Your task to perform on an android device: find snoozed emails in the gmail app Image 0: 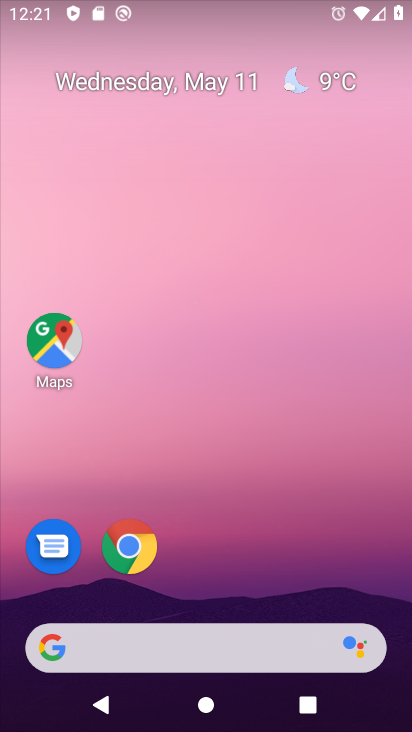
Step 0: drag from (201, 564) to (203, 260)
Your task to perform on an android device: find snoozed emails in the gmail app Image 1: 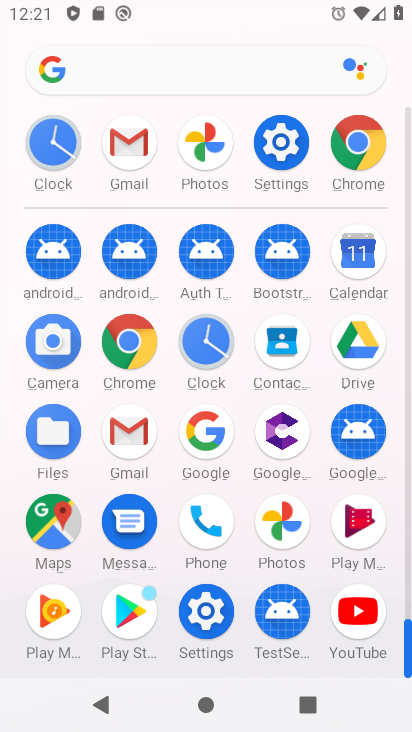
Step 1: click (141, 434)
Your task to perform on an android device: find snoozed emails in the gmail app Image 2: 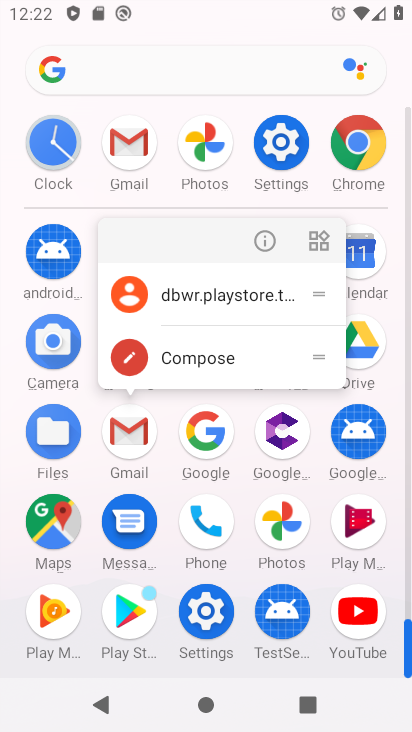
Step 2: click (253, 245)
Your task to perform on an android device: find snoozed emails in the gmail app Image 3: 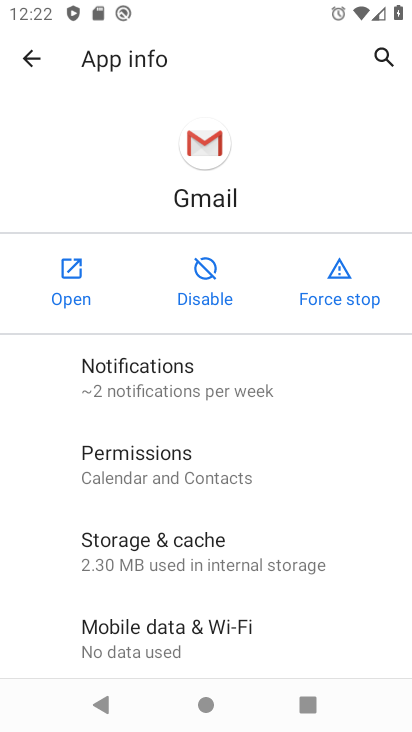
Step 3: click (84, 282)
Your task to perform on an android device: find snoozed emails in the gmail app Image 4: 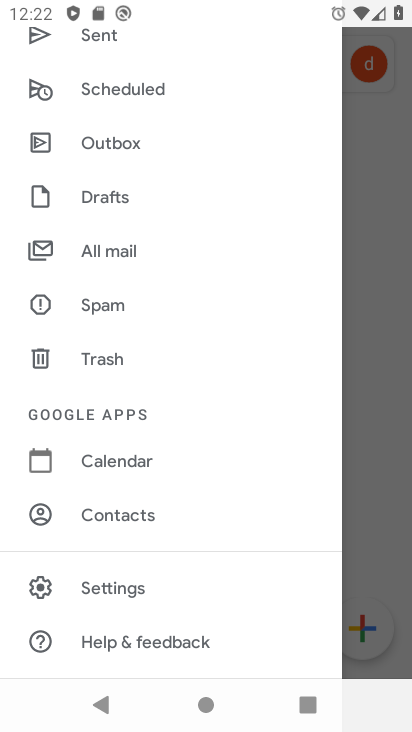
Step 4: drag from (201, 565) to (191, 228)
Your task to perform on an android device: find snoozed emails in the gmail app Image 5: 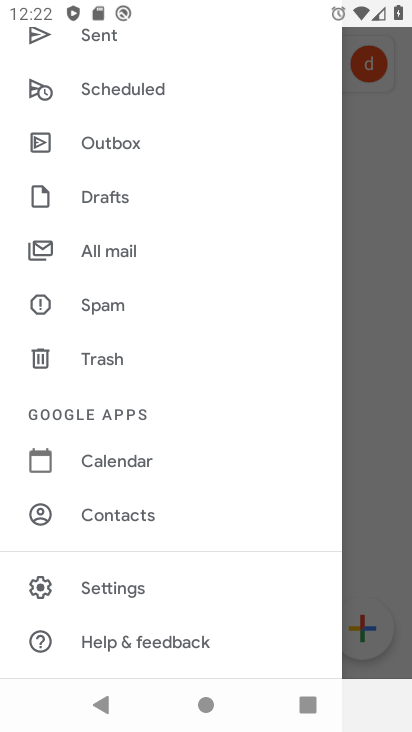
Step 5: drag from (150, 183) to (148, 710)
Your task to perform on an android device: find snoozed emails in the gmail app Image 6: 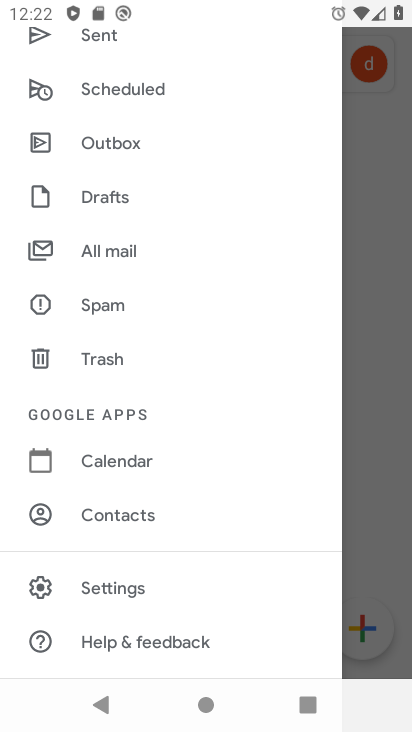
Step 6: drag from (144, 165) to (292, 730)
Your task to perform on an android device: find snoozed emails in the gmail app Image 7: 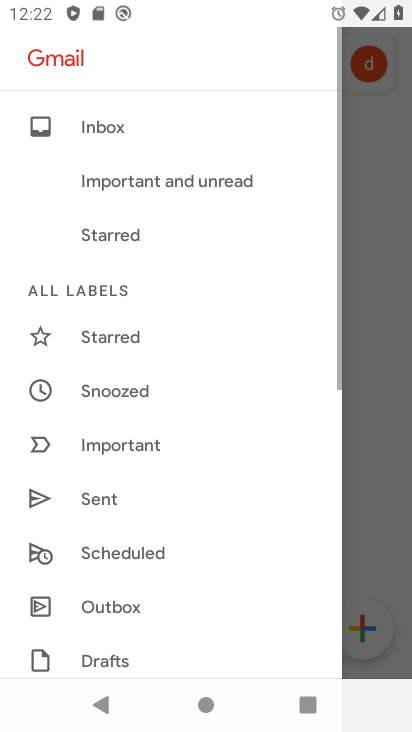
Step 7: drag from (140, 141) to (238, 516)
Your task to perform on an android device: find snoozed emails in the gmail app Image 8: 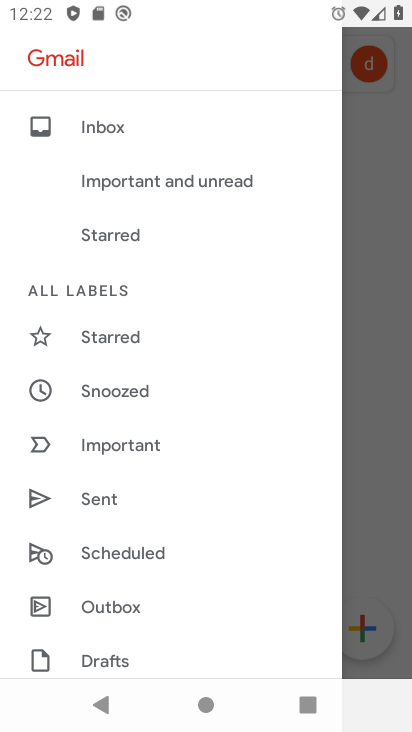
Step 8: click (128, 394)
Your task to perform on an android device: find snoozed emails in the gmail app Image 9: 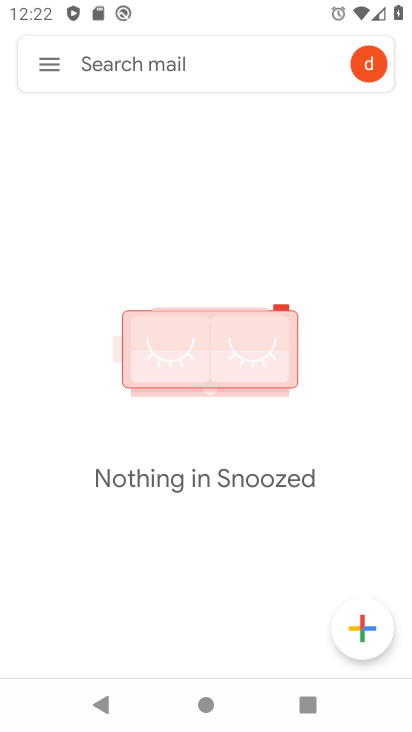
Step 9: task complete